Your task to perform on an android device: refresh tabs in the chrome app Image 0: 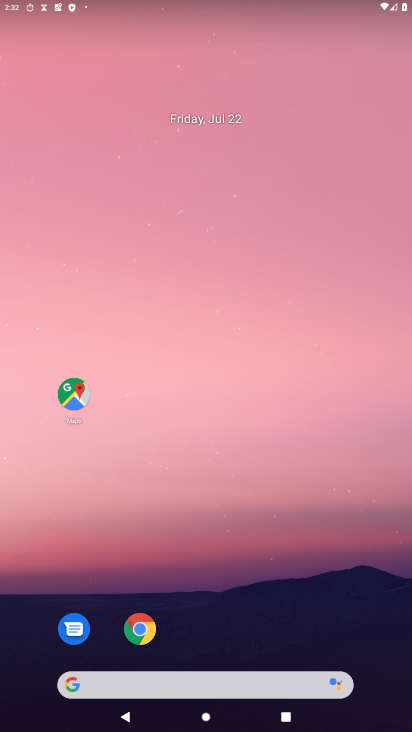
Step 0: drag from (256, 709) to (306, 53)
Your task to perform on an android device: refresh tabs in the chrome app Image 1: 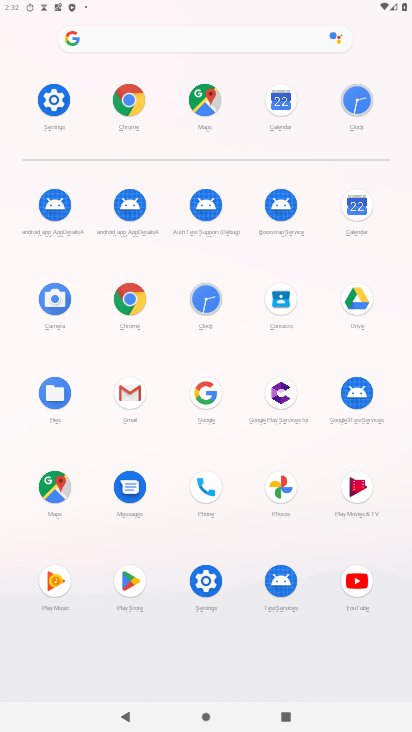
Step 1: click (136, 317)
Your task to perform on an android device: refresh tabs in the chrome app Image 2: 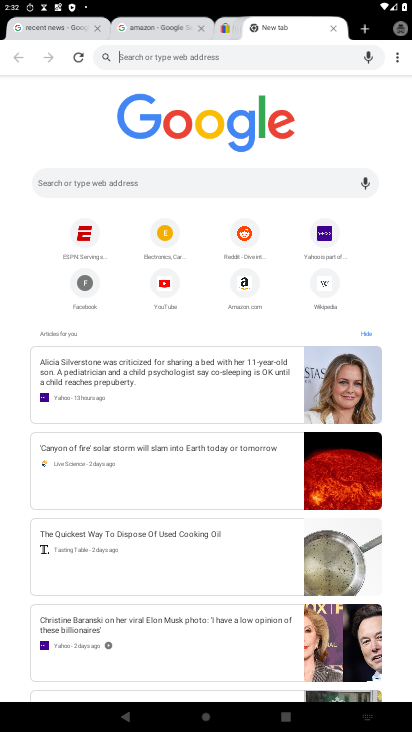
Step 2: drag from (406, 59) to (180, 144)
Your task to perform on an android device: refresh tabs in the chrome app Image 3: 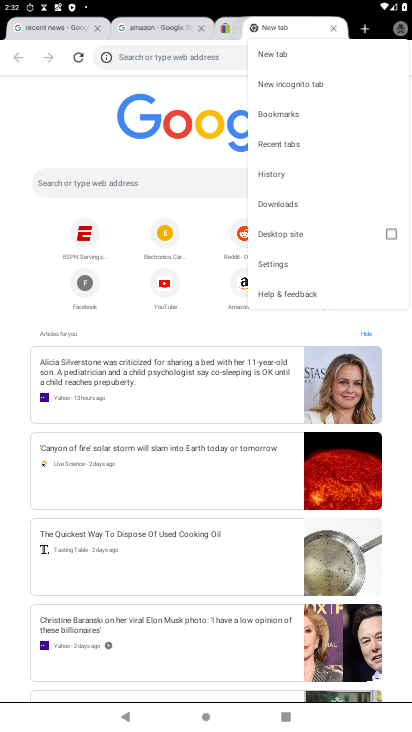
Step 3: click (181, 144)
Your task to perform on an android device: refresh tabs in the chrome app Image 4: 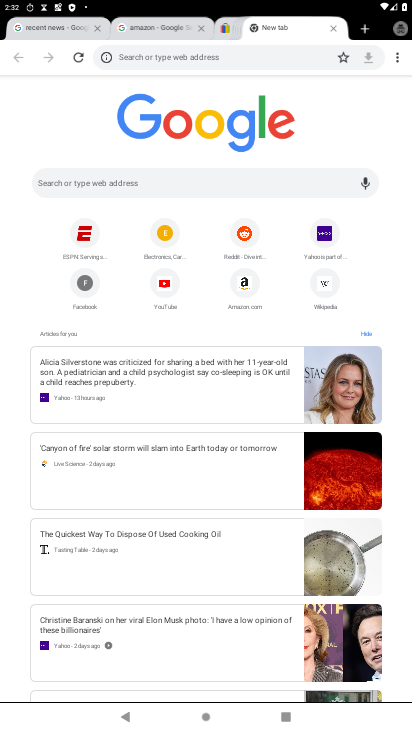
Step 4: click (90, 59)
Your task to perform on an android device: refresh tabs in the chrome app Image 5: 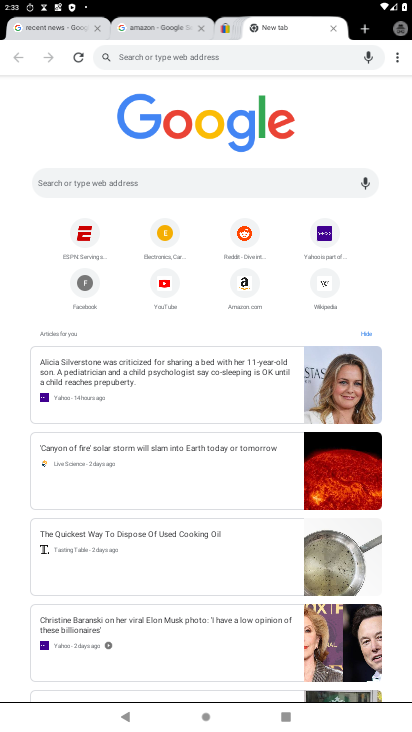
Step 5: task complete